Your task to perform on an android device: turn off location Image 0: 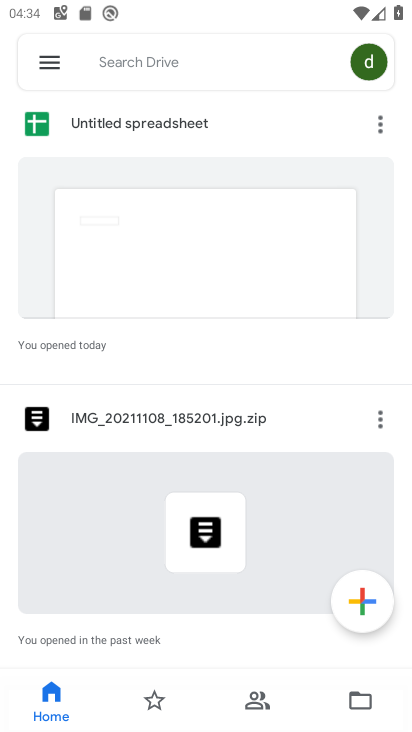
Step 0: press home button
Your task to perform on an android device: turn off location Image 1: 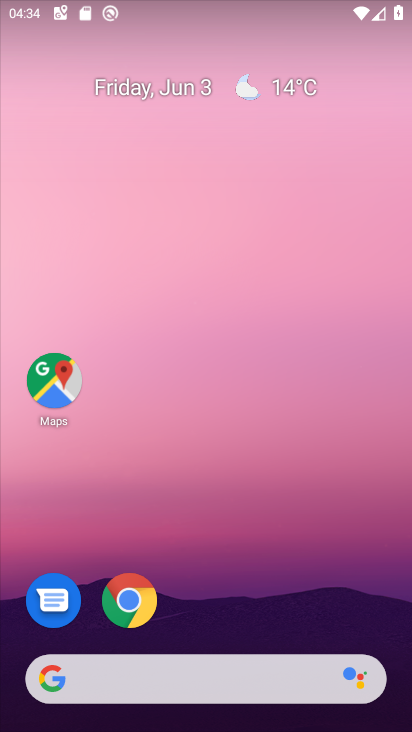
Step 1: drag from (283, 609) to (245, 193)
Your task to perform on an android device: turn off location Image 2: 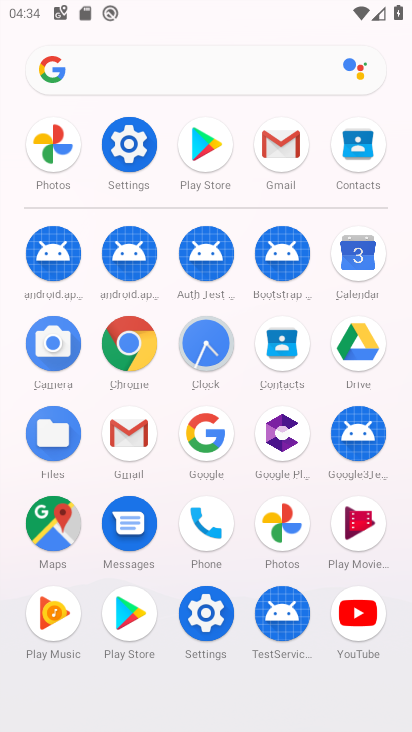
Step 2: click (136, 148)
Your task to perform on an android device: turn off location Image 3: 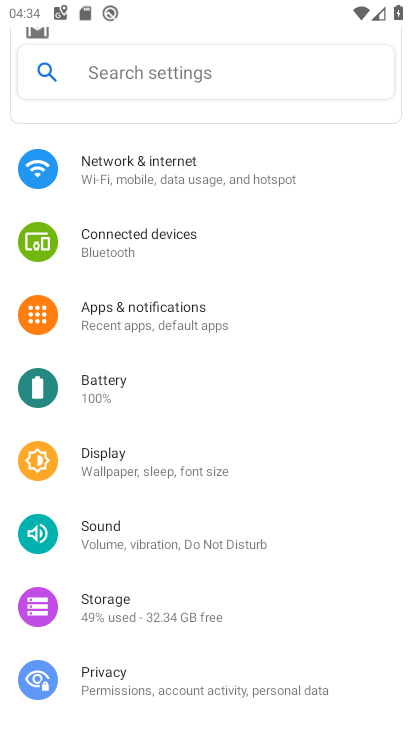
Step 3: drag from (200, 610) to (208, 261)
Your task to perform on an android device: turn off location Image 4: 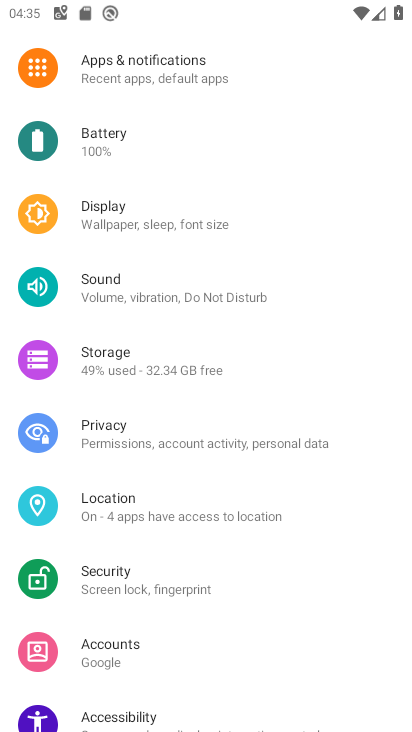
Step 4: click (115, 497)
Your task to perform on an android device: turn off location Image 5: 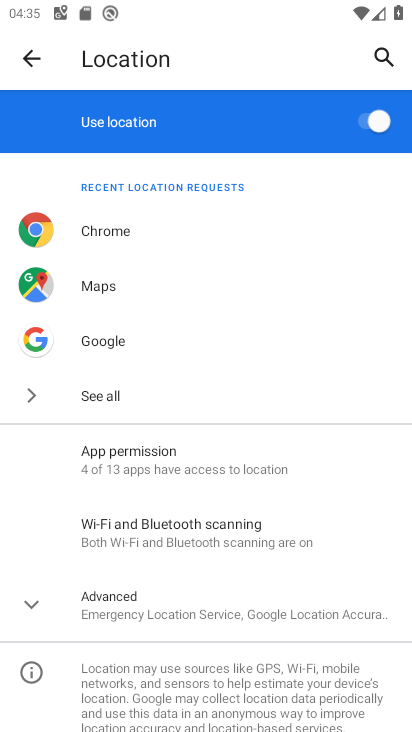
Step 5: click (358, 136)
Your task to perform on an android device: turn off location Image 6: 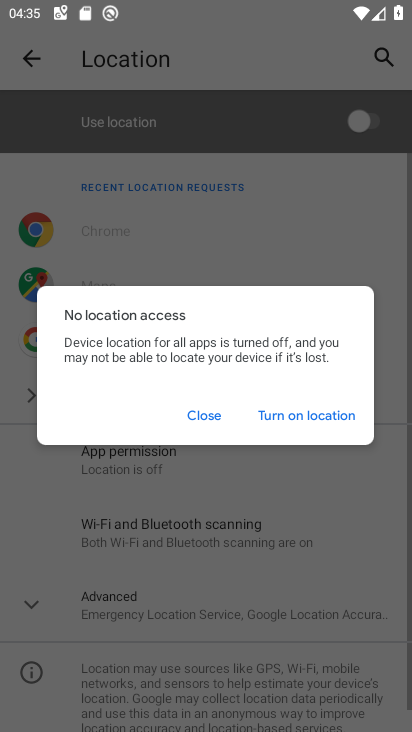
Step 6: task complete